Your task to perform on an android device: toggle javascript in the chrome app Image 0: 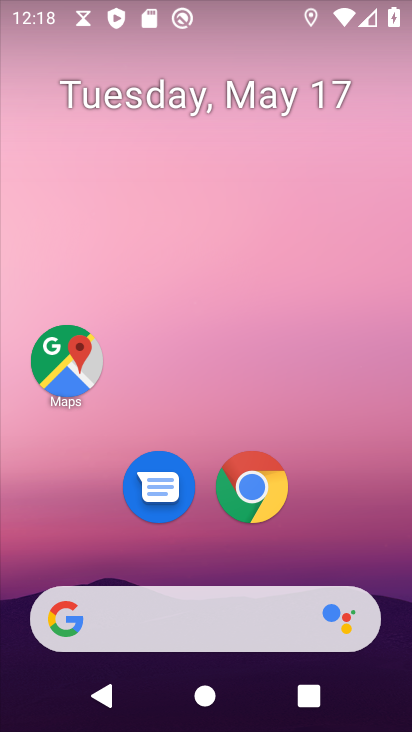
Step 0: drag from (331, 523) to (143, 3)
Your task to perform on an android device: toggle javascript in the chrome app Image 1: 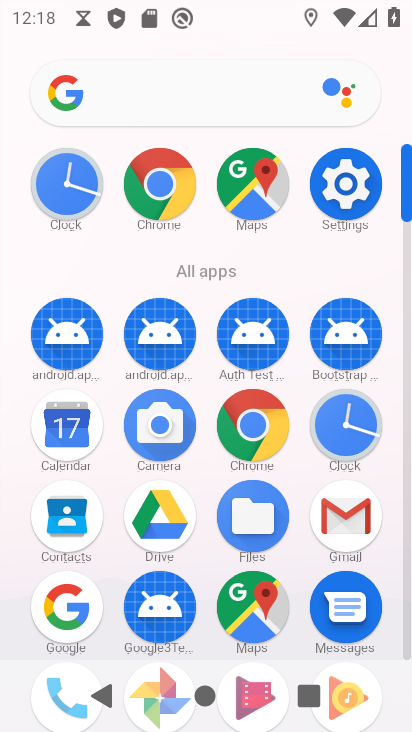
Step 1: drag from (15, 530) to (9, 249)
Your task to perform on an android device: toggle javascript in the chrome app Image 2: 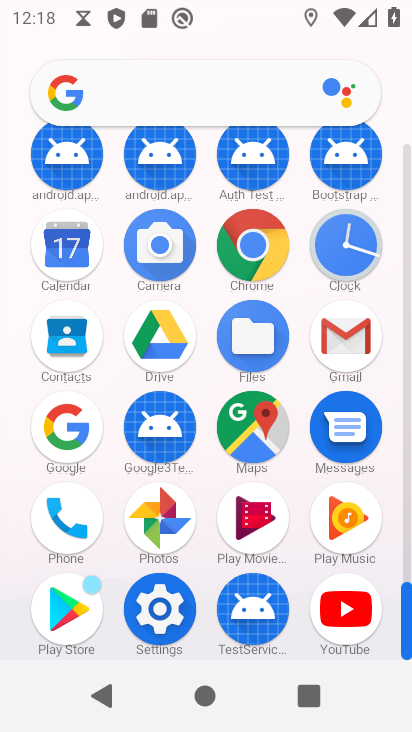
Step 2: click (251, 240)
Your task to perform on an android device: toggle javascript in the chrome app Image 3: 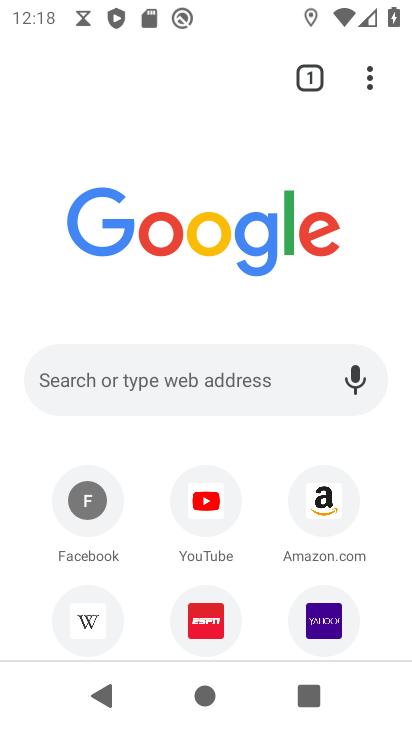
Step 3: drag from (8, 564) to (23, 281)
Your task to perform on an android device: toggle javascript in the chrome app Image 4: 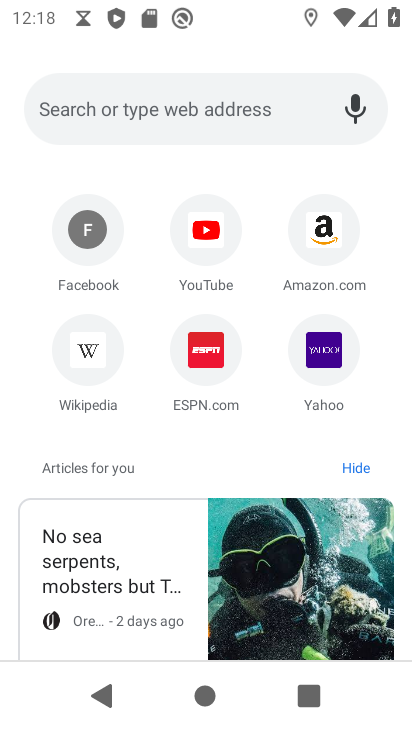
Step 4: drag from (313, 89) to (291, 384)
Your task to perform on an android device: toggle javascript in the chrome app Image 5: 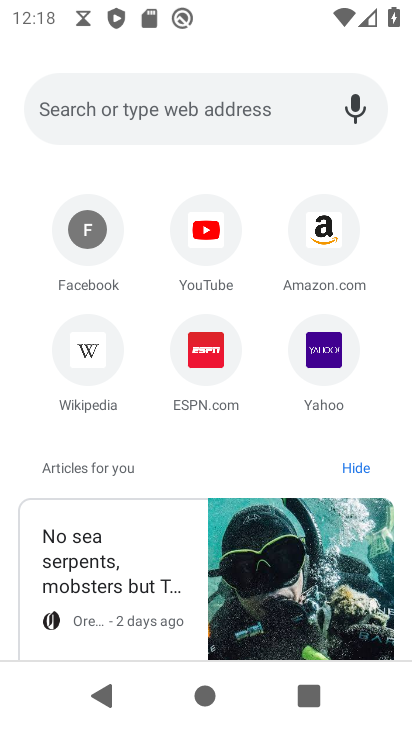
Step 5: drag from (265, 84) to (258, 341)
Your task to perform on an android device: toggle javascript in the chrome app Image 6: 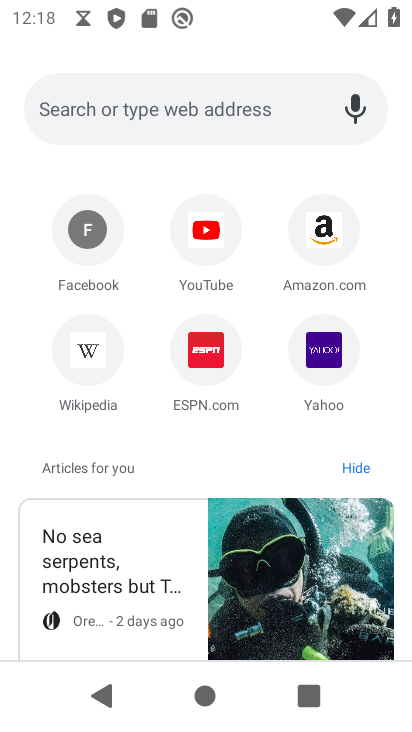
Step 6: drag from (49, 160) to (25, 462)
Your task to perform on an android device: toggle javascript in the chrome app Image 7: 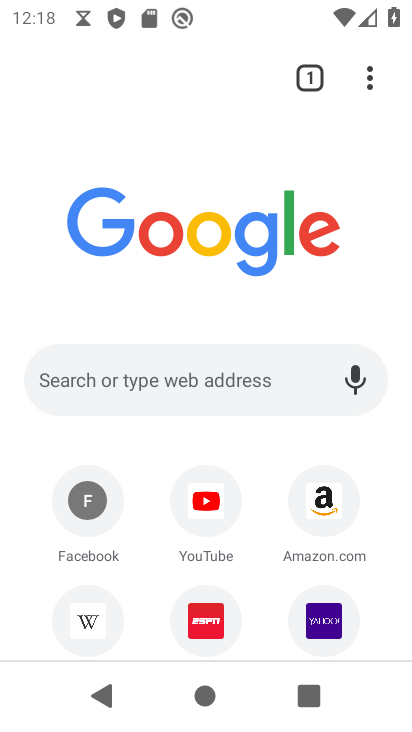
Step 7: drag from (368, 70) to (92, 543)
Your task to perform on an android device: toggle javascript in the chrome app Image 8: 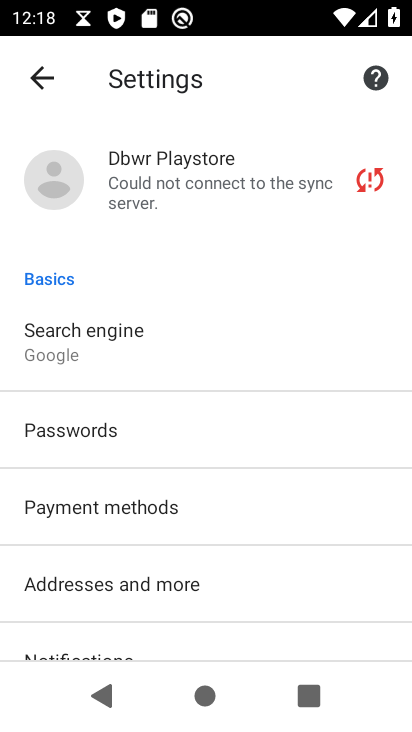
Step 8: drag from (206, 567) to (195, 216)
Your task to perform on an android device: toggle javascript in the chrome app Image 9: 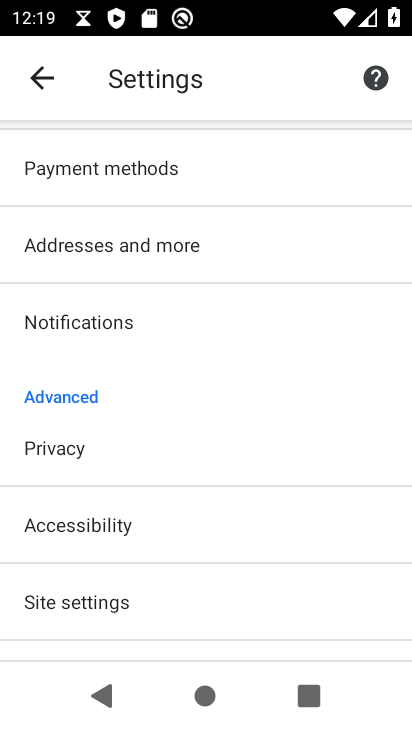
Step 9: drag from (194, 576) to (207, 308)
Your task to perform on an android device: toggle javascript in the chrome app Image 10: 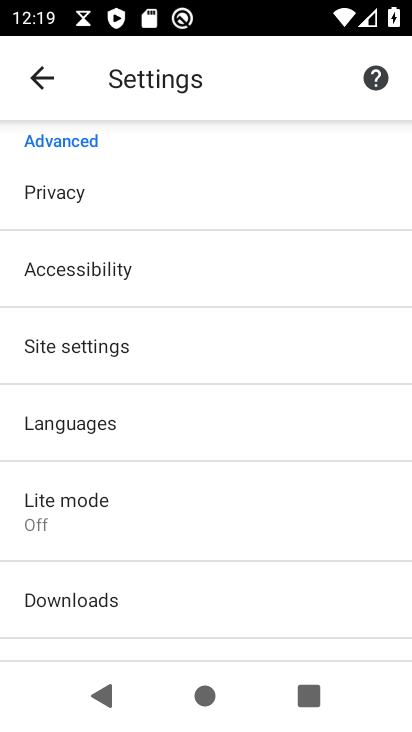
Step 10: click (137, 342)
Your task to perform on an android device: toggle javascript in the chrome app Image 11: 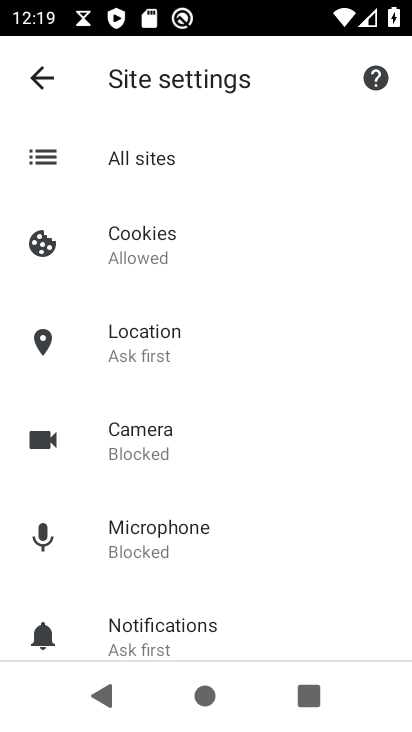
Step 11: drag from (231, 503) to (259, 177)
Your task to perform on an android device: toggle javascript in the chrome app Image 12: 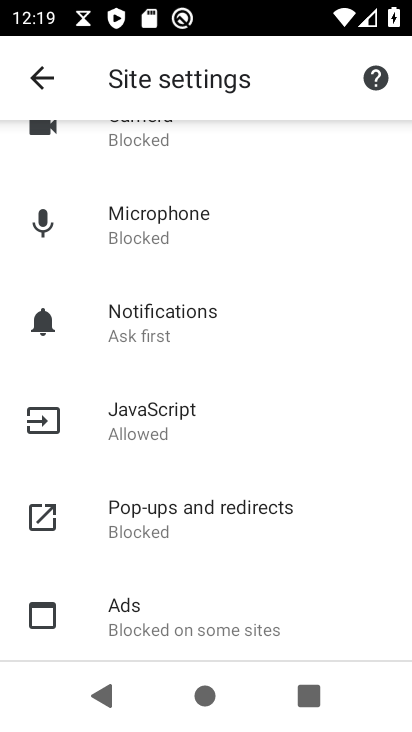
Step 12: click (138, 433)
Your task to perform on an android device: toggle javascript in the chrome app Image 13: 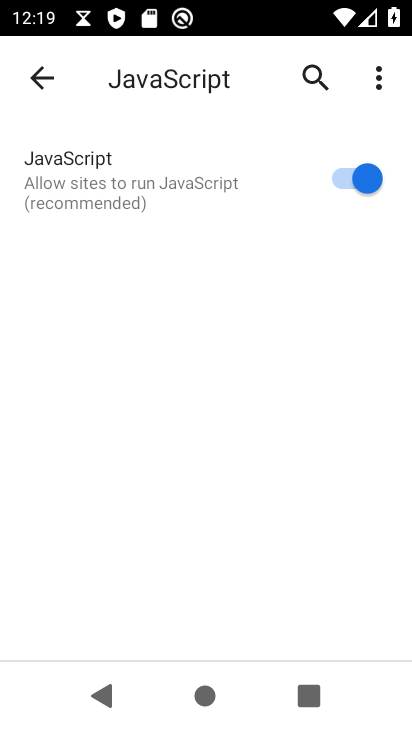
Step 13: click (356, 173)
Your task to perform on an android device: toggle javascript in the chrome app Image 14: 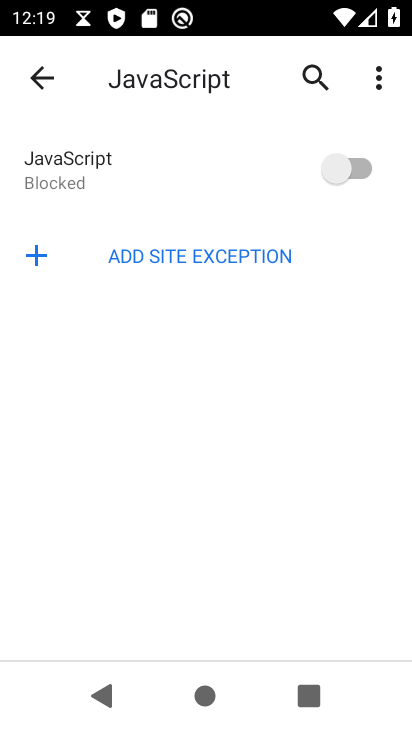
Step 14: task complete